Your task to perform on an android device: Open wifi settings Image 0: 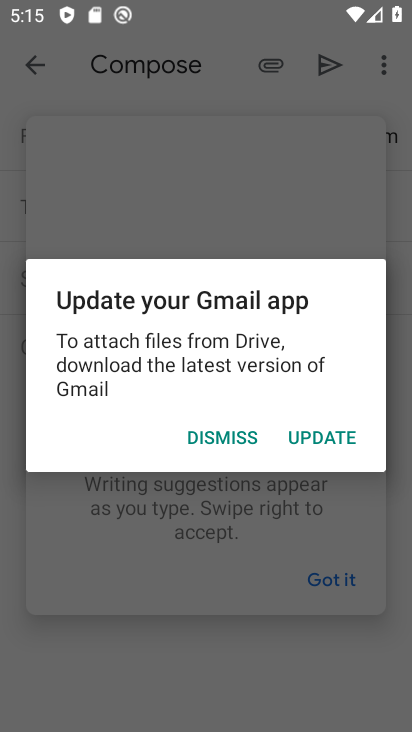
Step 0: press home button
Your task to perform on an android device: Open wifi settings Image 1: 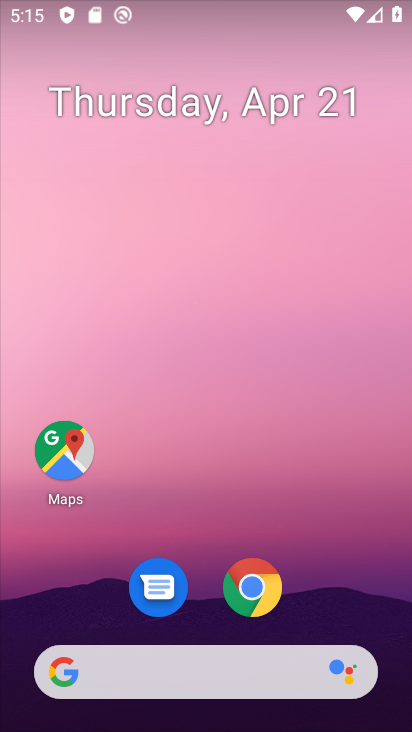
Step 1: drag from (202, 615) to (245, 148)
Your task to perform on an android device: Open wifi settings Image 2: 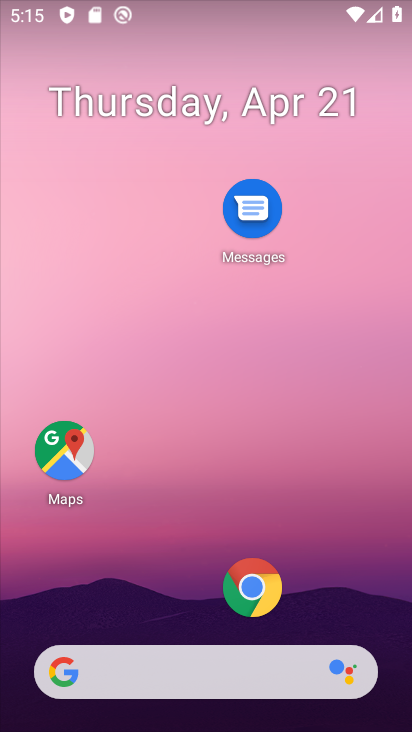
Step 2: drag from (144, 577) to (200, 66)
Your task to perform on an android device: Open wifi settings Image 3: 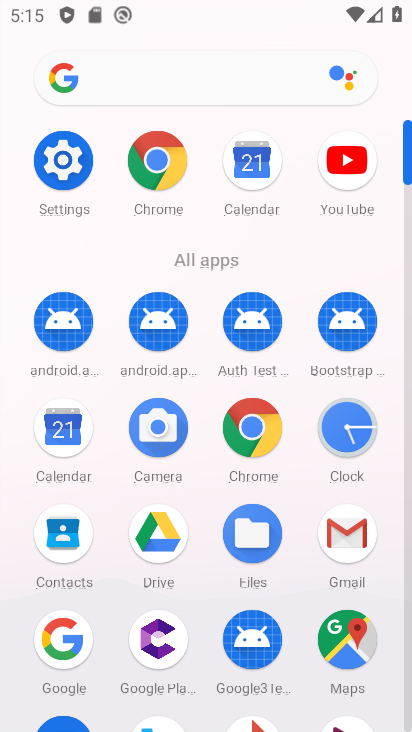
Step 3: click (55, 147)
Your task to perform on an android device: Open wifi settings Image 4: 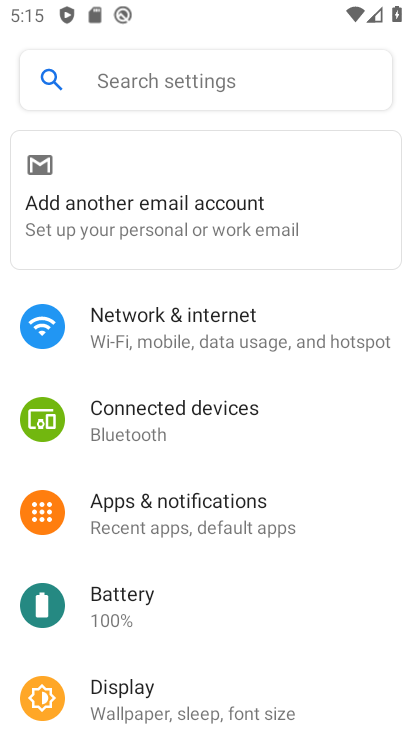
Step 4: click (131, 311)
Your task to perform on an android device: Open wifi settings Image 5: 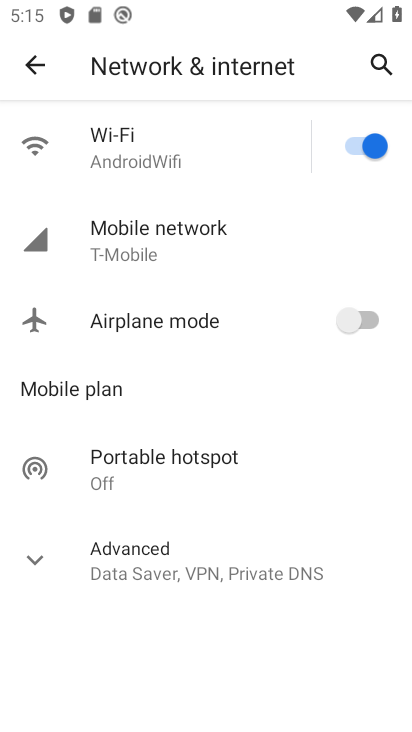
Step 5: click (175, 136)
Your task to perform on an android device: Open wifi settings Image 6: 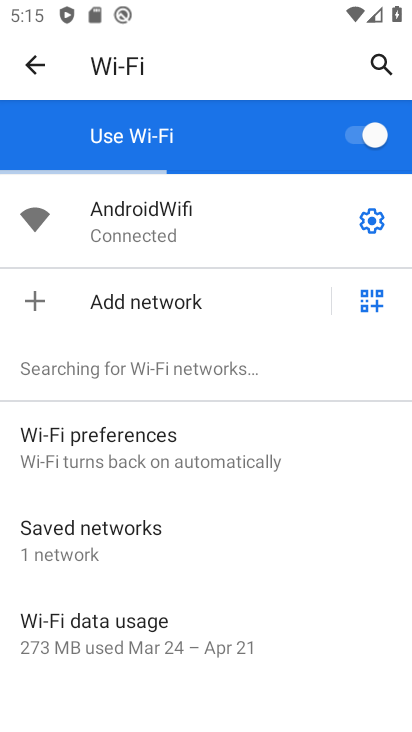
Step 6: task complete